Your task to perform on an android device: change text size in settings app Image 0: 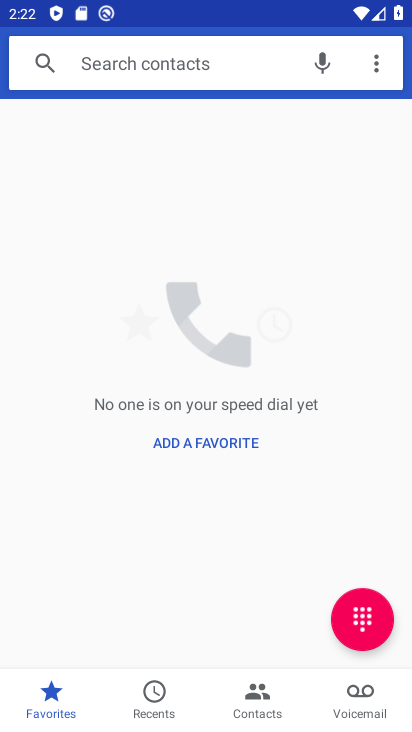
Step 0: press home button
Your task to perform on an android device: change text size in settings app Image 1: 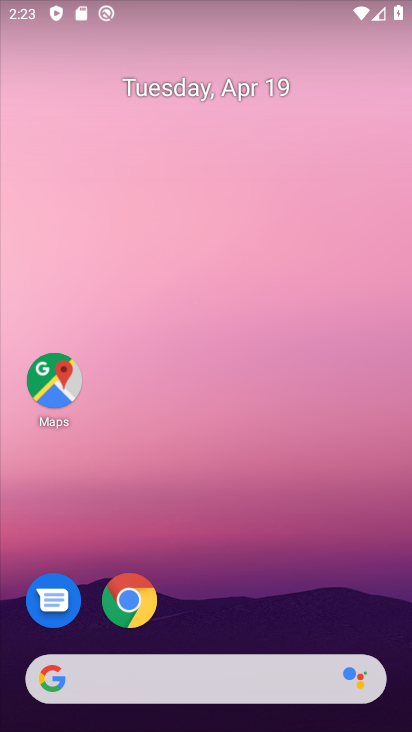
Step 1: drag from (273, 640) to (337, 89)
Your task to perform on an android device: change text size in settings app Image 2: 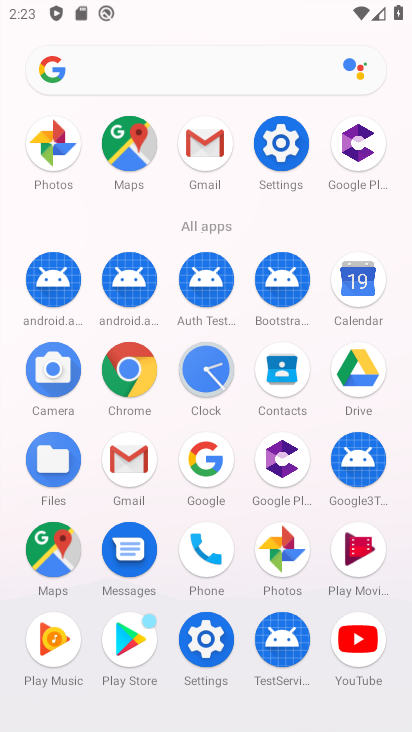
Step 2: drag from (243, 341) to (246, 69)
Your task to perform on an android device: change text size in settings app Image 3: 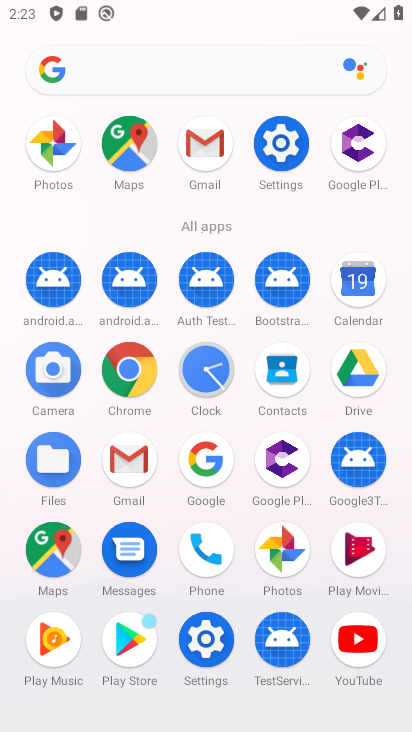
Step 3: click (199, 632)
Your task to perform on an android device: change text size in settings app Image 4: 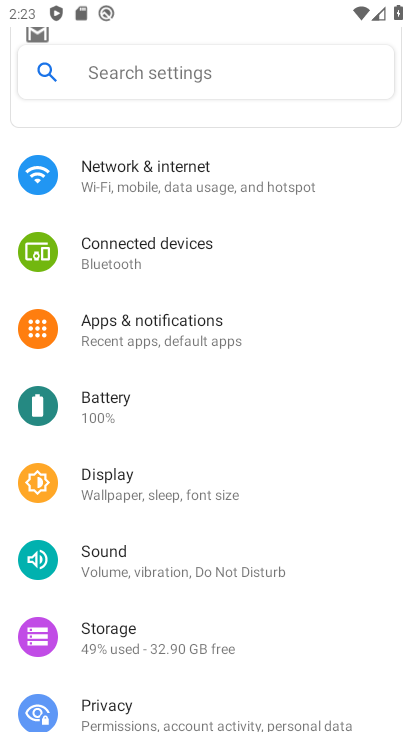
Step 4: click (168, 488)
Your task to perform on an android device: change text size in settings app Image 5: 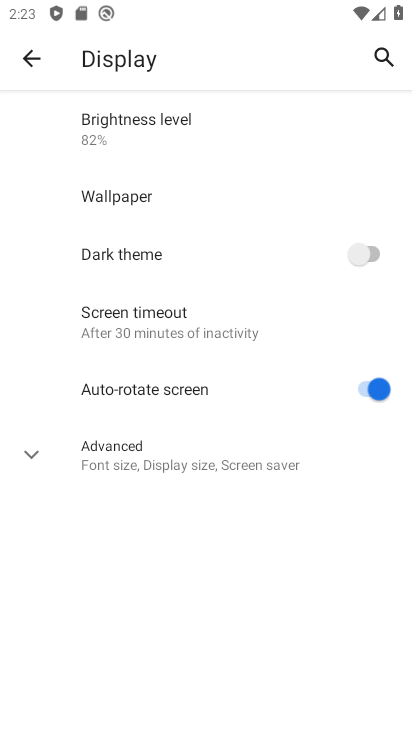
Step 5: drag from (226, 678) to (221, 184)
Your task to perform on an android device: change text size in settings app Image 6: 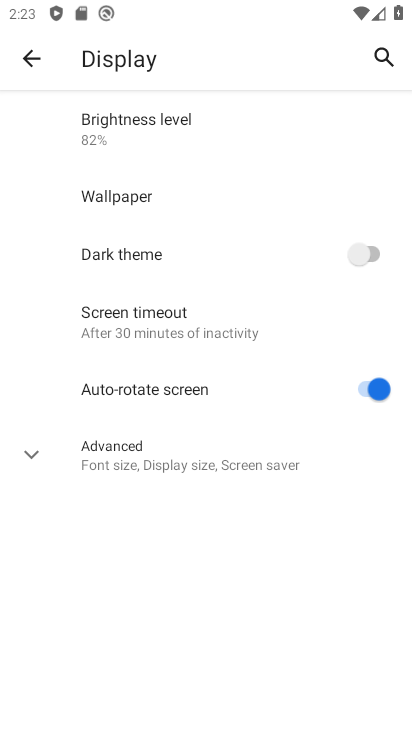
Step 6: click (174, 463)
Your task to perform on an android device: change text size in settings app Image 7: 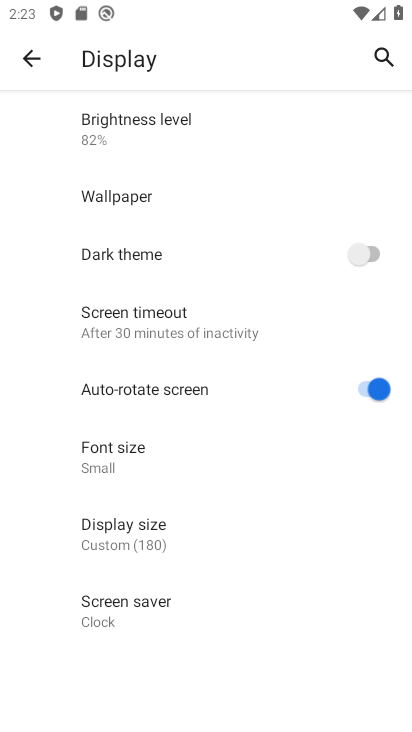
Step 7: click (106, 465)
Your task to perform on an android device: change text size in settings app Image 8: 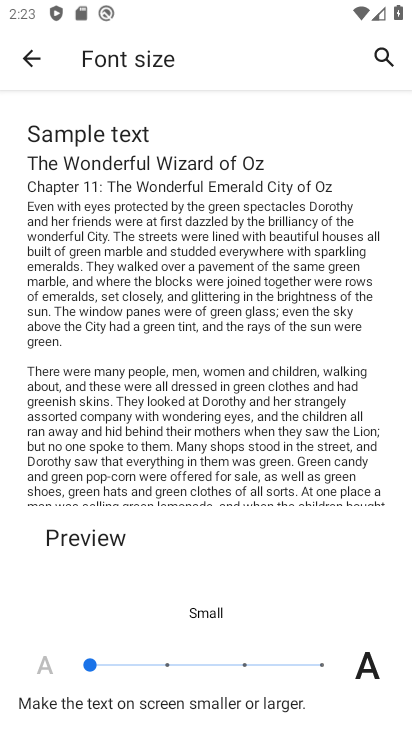
Step 8: click (156, 662)
Your task to perform on an android device: change text size in settings app Image 9: 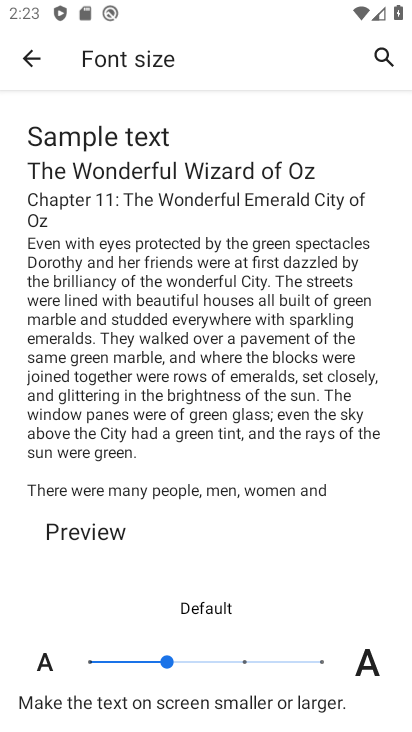
Step 9: task complete